Your task to perform on an android device: turn on improve location accuracy Image 0: 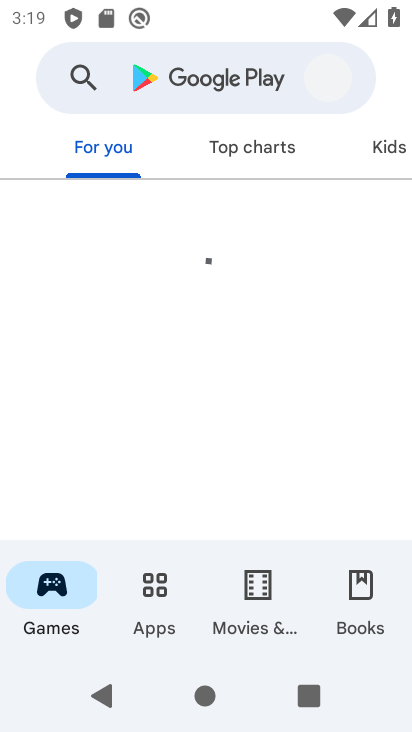
Step 0: press back button
Your task to perform on an android device: turn on improve location accuracy Image 1: 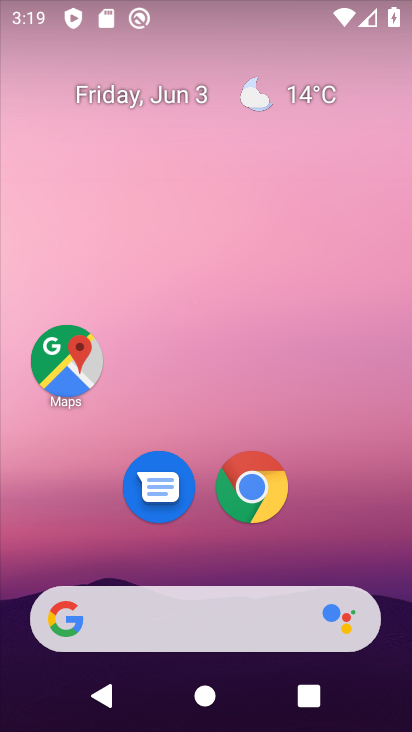
Step 1: drag from (213, 579) to (247, 120)
Your task to perform on an android device: turn on improve location accuracy Image 2: 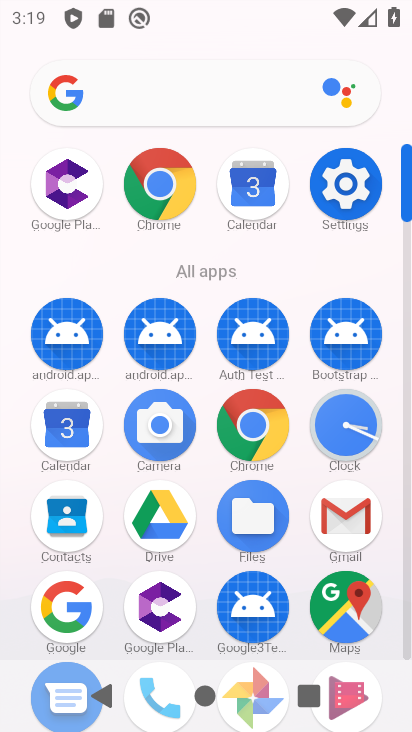
Step 2: click (351, 189)
Your task to perform on an android device: turn on improve location accuracy Image 3: 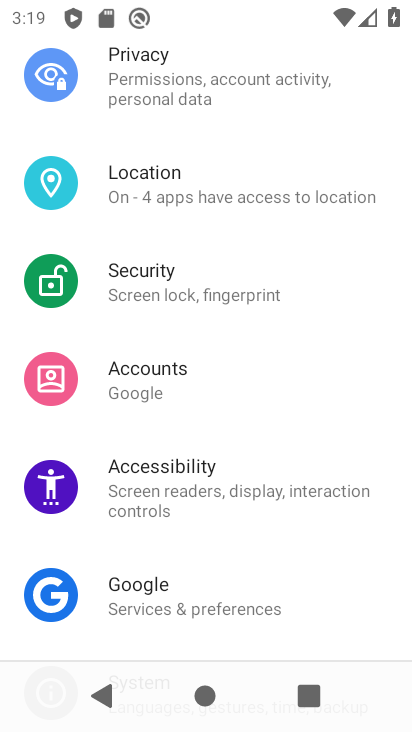
Step 3: click (206, 192)
Your task to perform on an android device: turn on improve location accuracy Image 4: 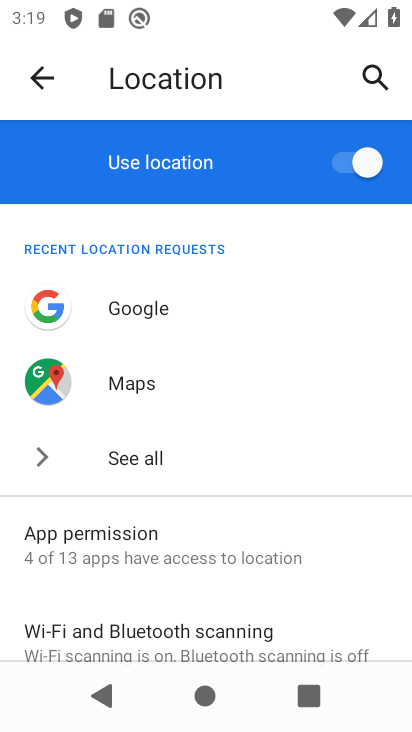
Step 4: drag from (112, 615) to (128, 177)
Your task to perform on an android device: turn on improve location accuracy Image 5: 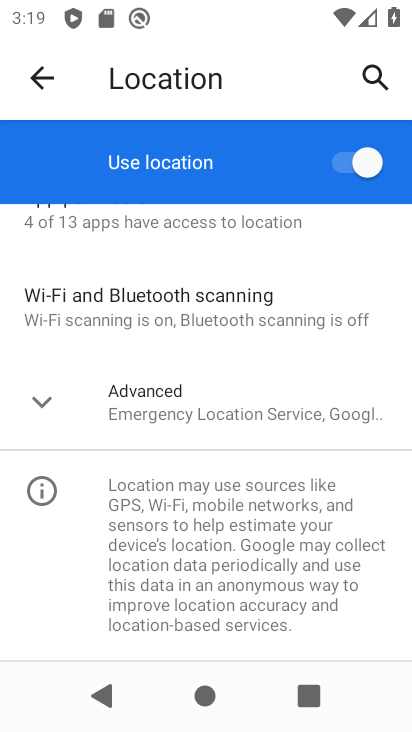
Step 5: click (133, 398)
Your task to perform on an android device: turn on improve location accuracy Image 6: 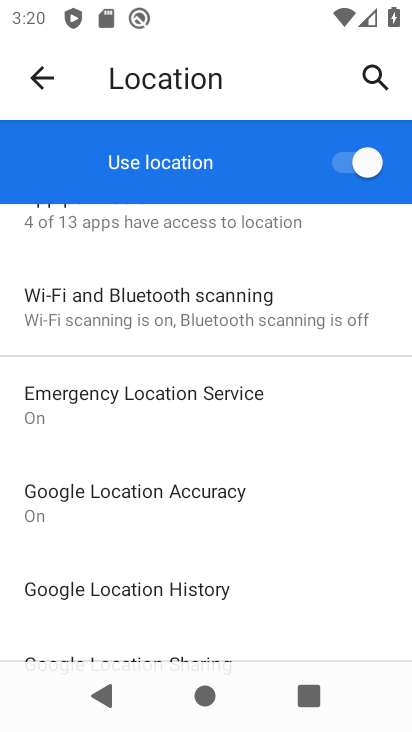
Step 6: click (144, 501)
Your task to perform on an android device: turn on improve location accuracy Image 7: 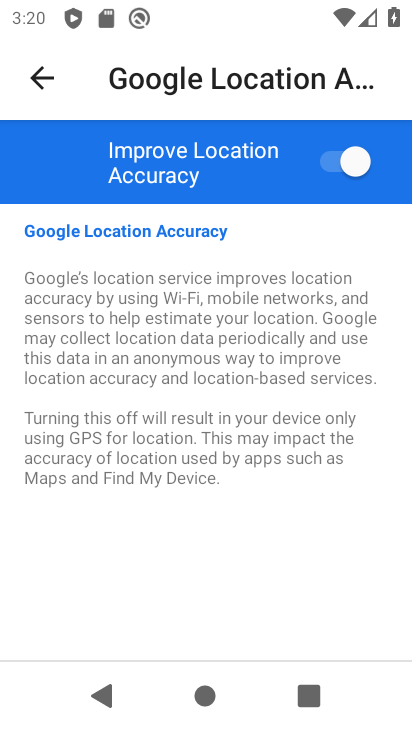
Step 7: task complete